Your task to perform on an android device: make emails show in primary in the gmail app Image 0: 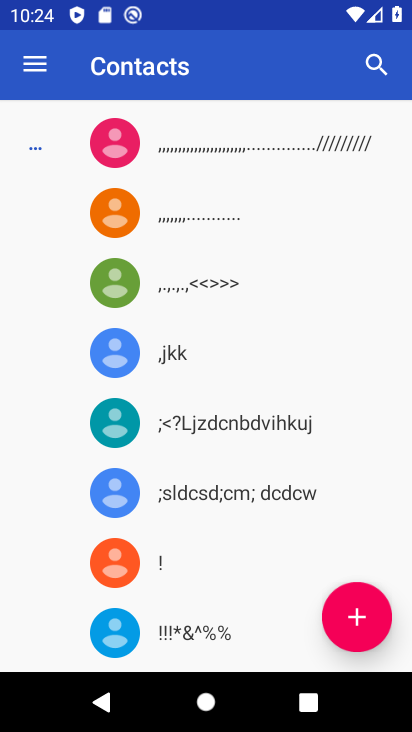
Step 0: press home button
Your task to perform on an android device: make emails show in primary in the gmail app Image 1: 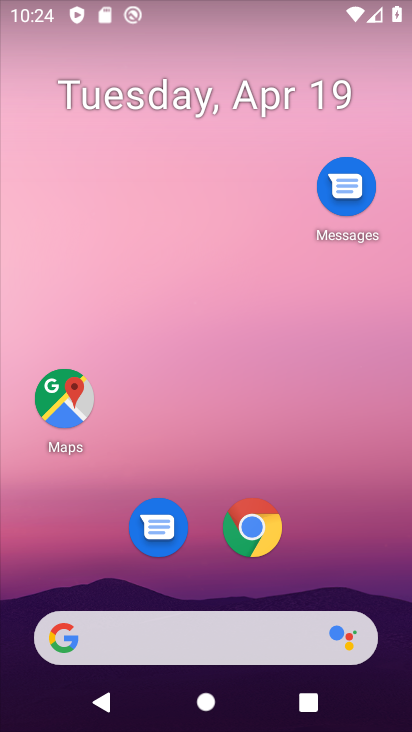
Step 1: drag from (350, 440) to (335, 184)
Your task to perform on an android device: make emails show in primary in the gmail app Image 2: 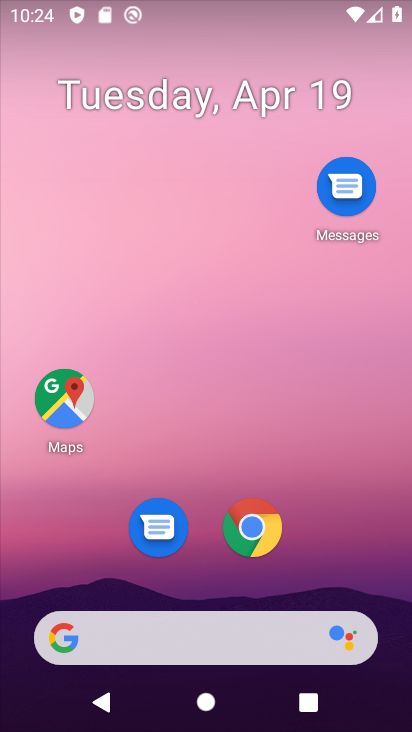
Step 2: drag from (349, 483) to (350, 76)
Your task to perform on an android device: make emails show in primary in the gmail app Image 3: 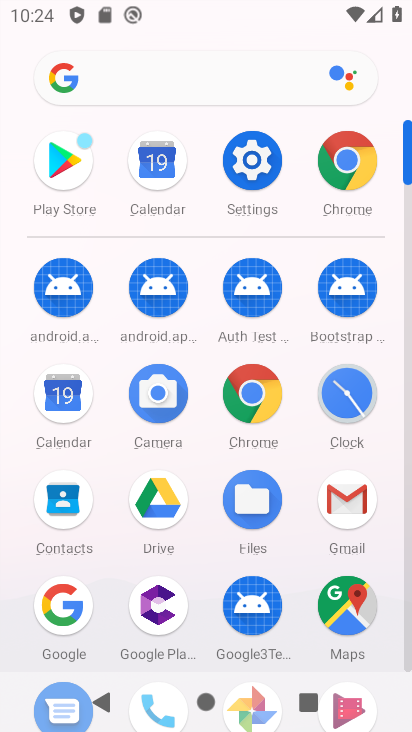
Step 3: click (350, 487)
Your task to perform on an android device: make emails show in primary in the gmail app Image 4: 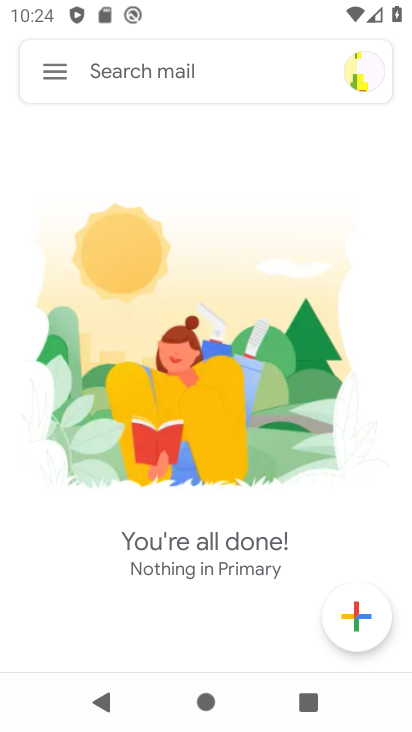
Step 4: click (56, 80)
Your task to perform on an android device: make emails show in primary in the gmail app Image 5: 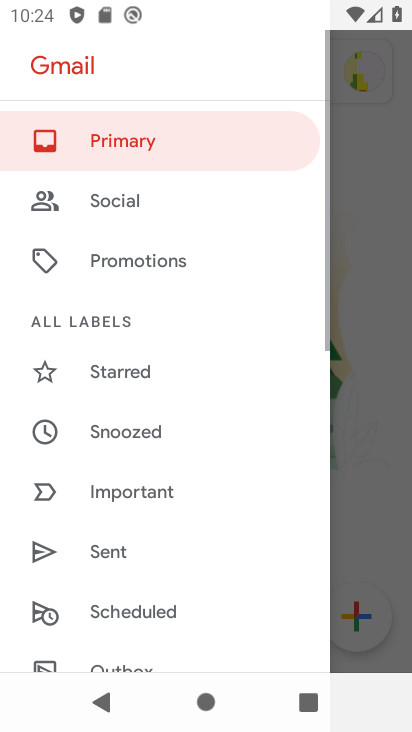
Step 5: click (120, 136)
Your task to perform on an android device: make emails show in primary in the gmail app Image 6: 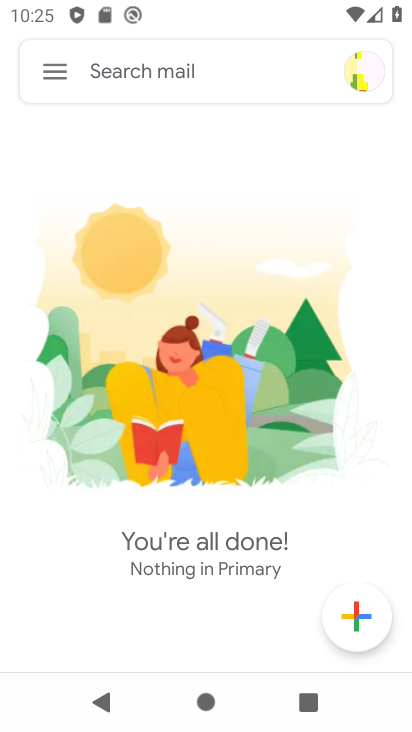
Step 6: task complete